Your task to perform on an android device: Go to Android settings Image 0: 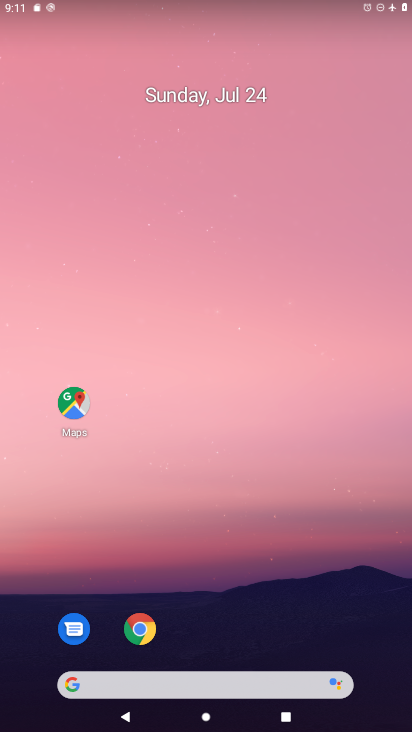
Step 0: drag from (311, 622) to (61, 72)
Your task to perform on an android device: Go to Android settings Image 1: 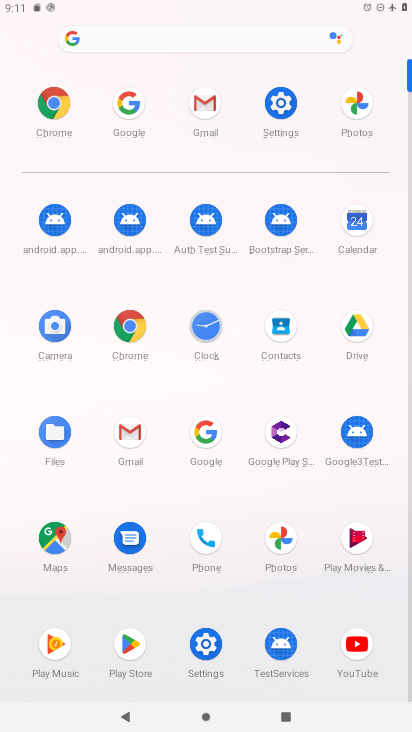
Step 1: click (197, 655)
Your task to perform on an android device: Go to Android settings Image 2: 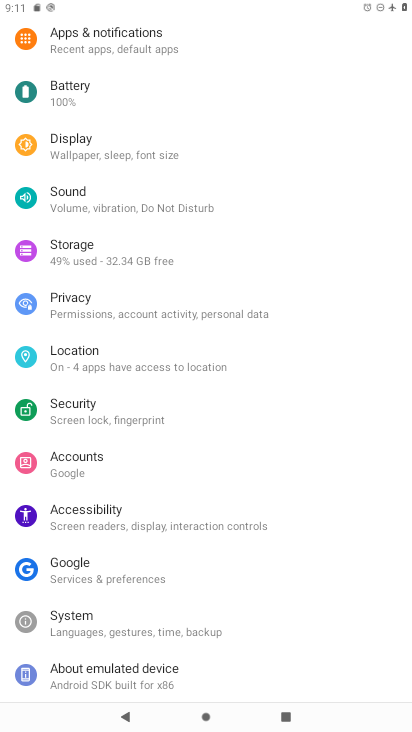
Step 2: task complete